Your task to perform on an android device: Go to battery settings Image 0: 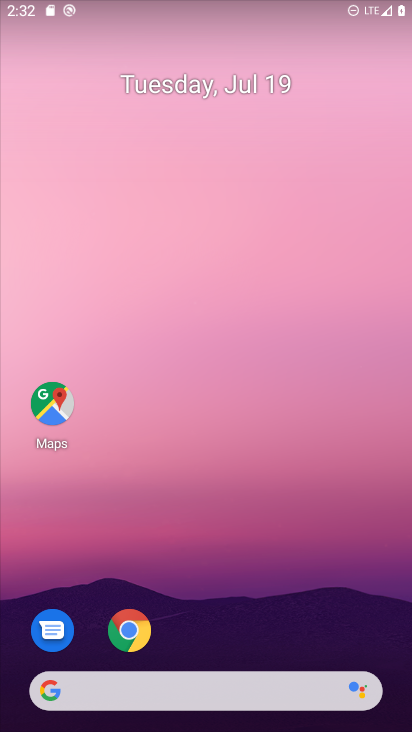
Step 0: drag from (350, 630) to (330, 221)
Your task to perform on an android device: Go to battery settings Image 1: 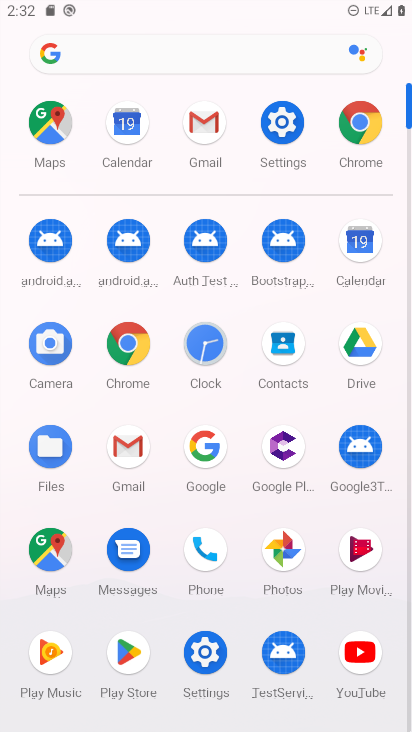
Step 1: click (203, 652)
Your task to perform on an android device: Go to battery settings Image 2: 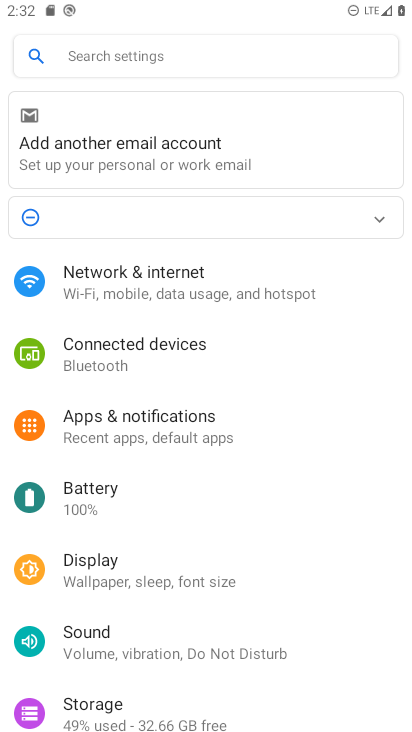
Step 2: click (80, 484)
Your task to perform on an android device: Go to battery settings Image 3: 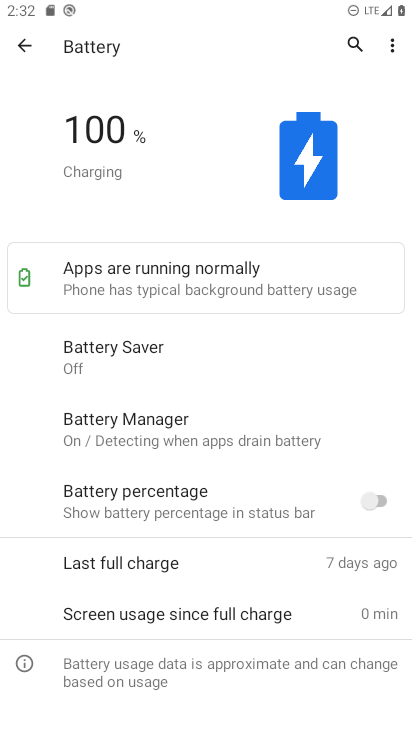
Step 3: task complete